Your task to perform on an android device: change notifications settings Image 0: 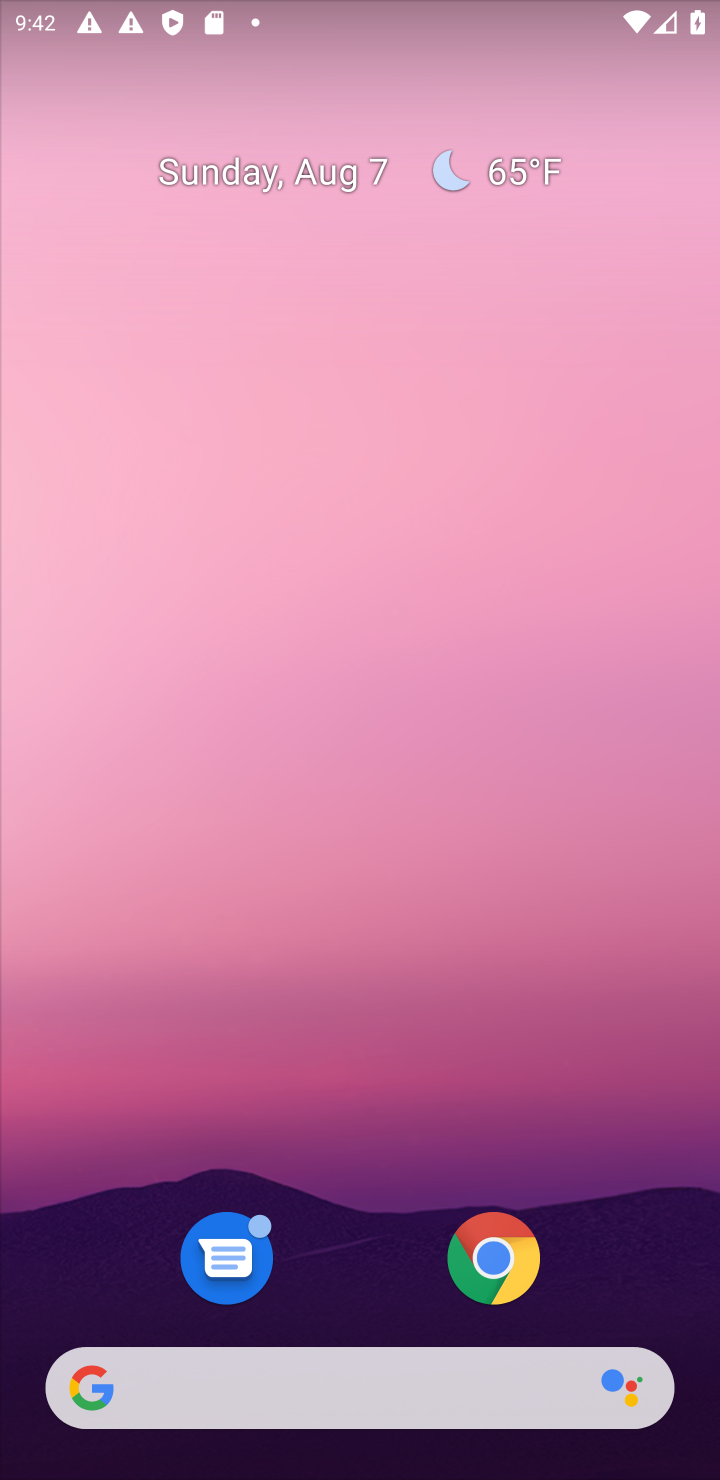
Step 0: drag from (366, 898) to (304, 145)
Your task to perform on an android device: change notifications settings Image 1: 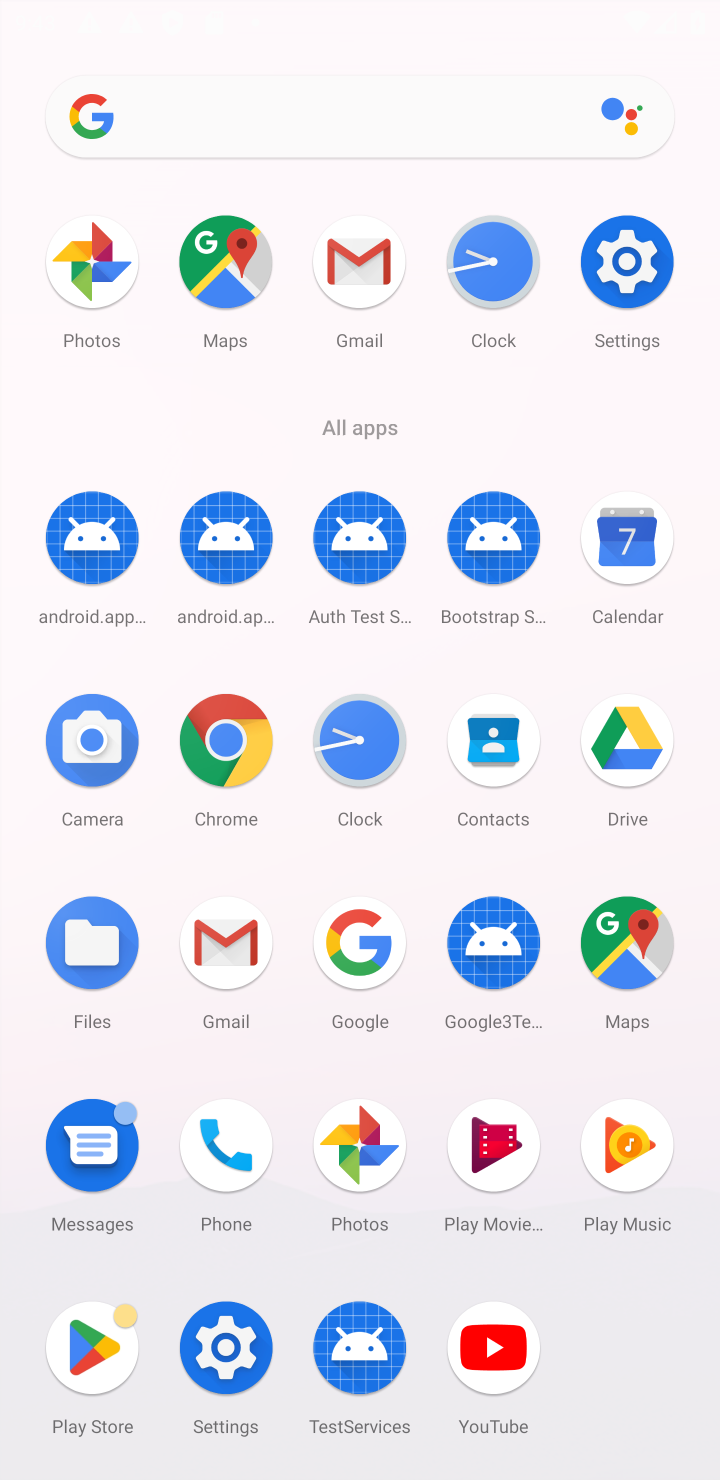
Step 1: click (239, 1353)
Your task to perform on an android device: change notifications settings Image 2: 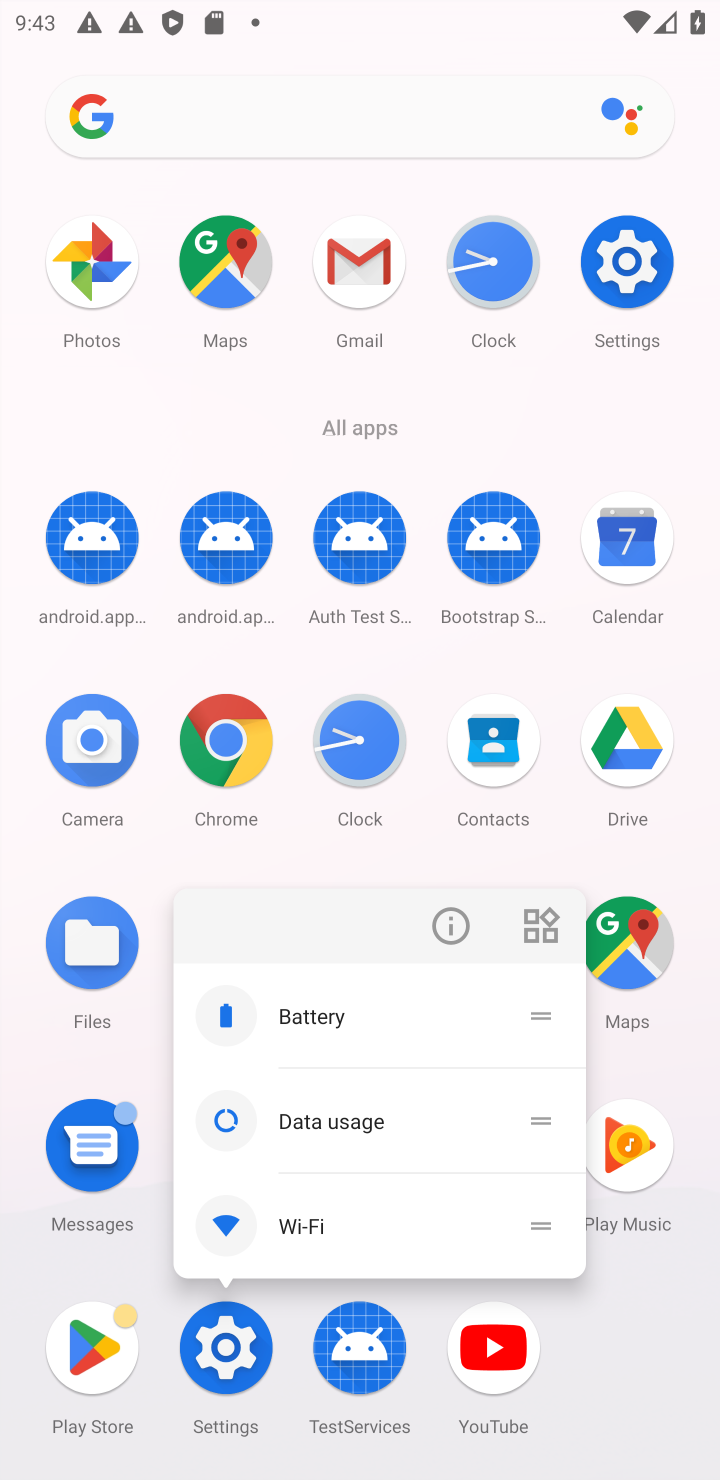
Step 2: click (240, 1390)
Your task to perform on an android device: change notifications settings Image 3: 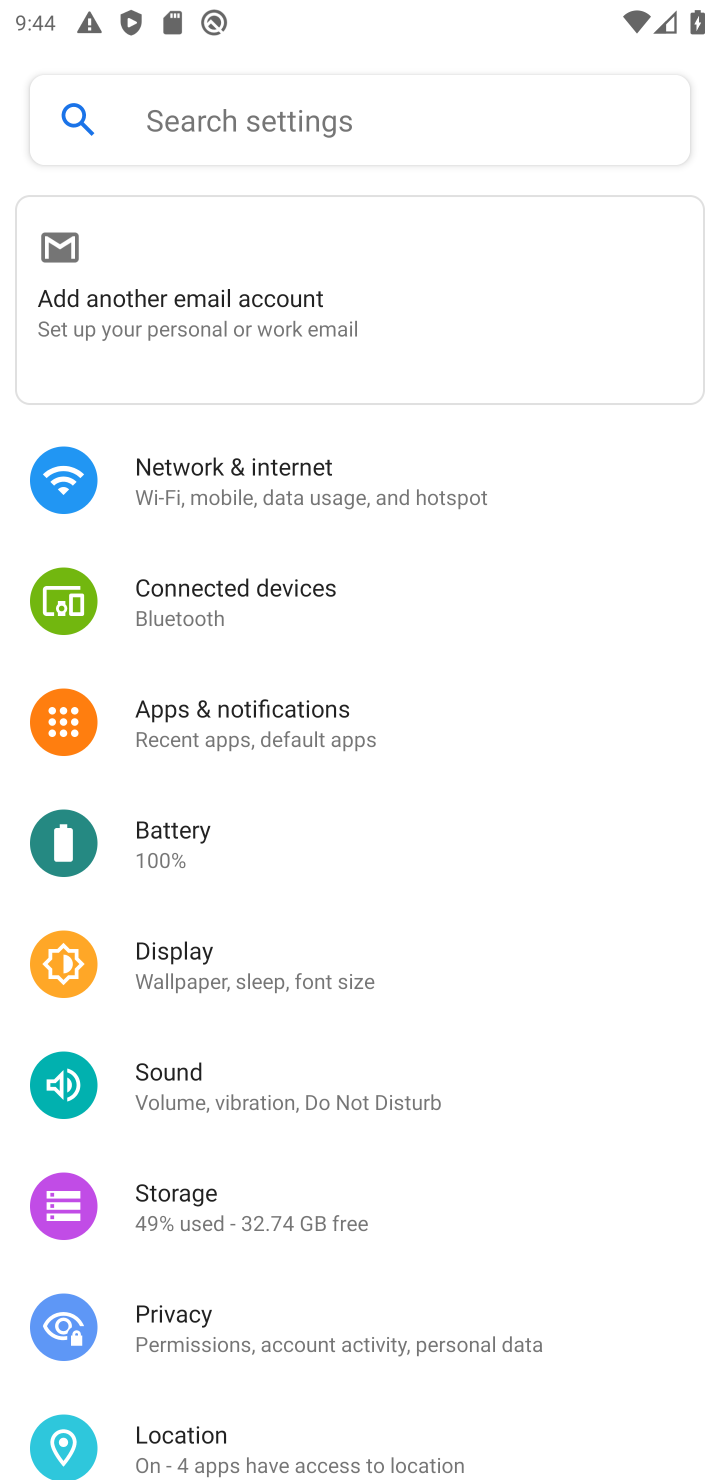
Step 3: click (281, 707)
Your task to perform on an android device: change notifications settings Image 4: 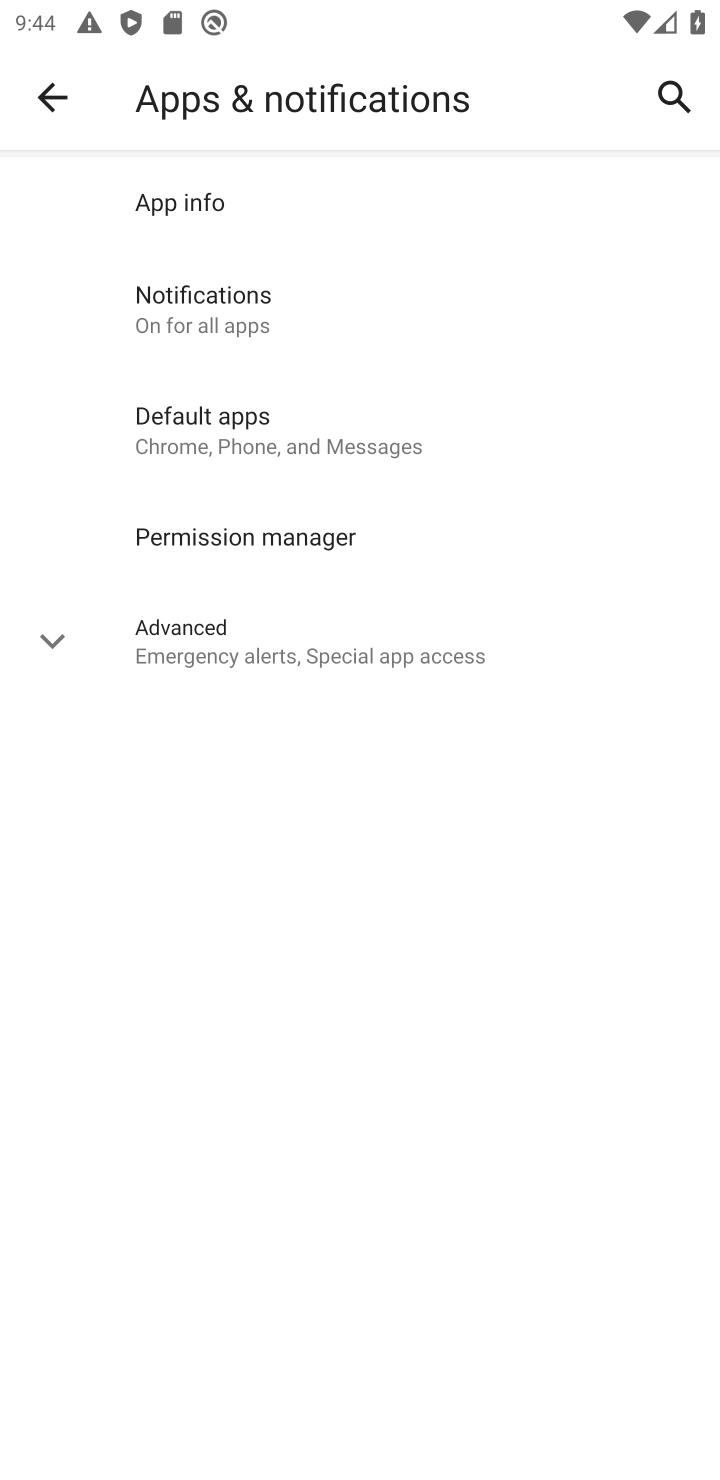
Step 4: click (197, 629)
Your task to perform on an android device: change notifications settings Image 5: 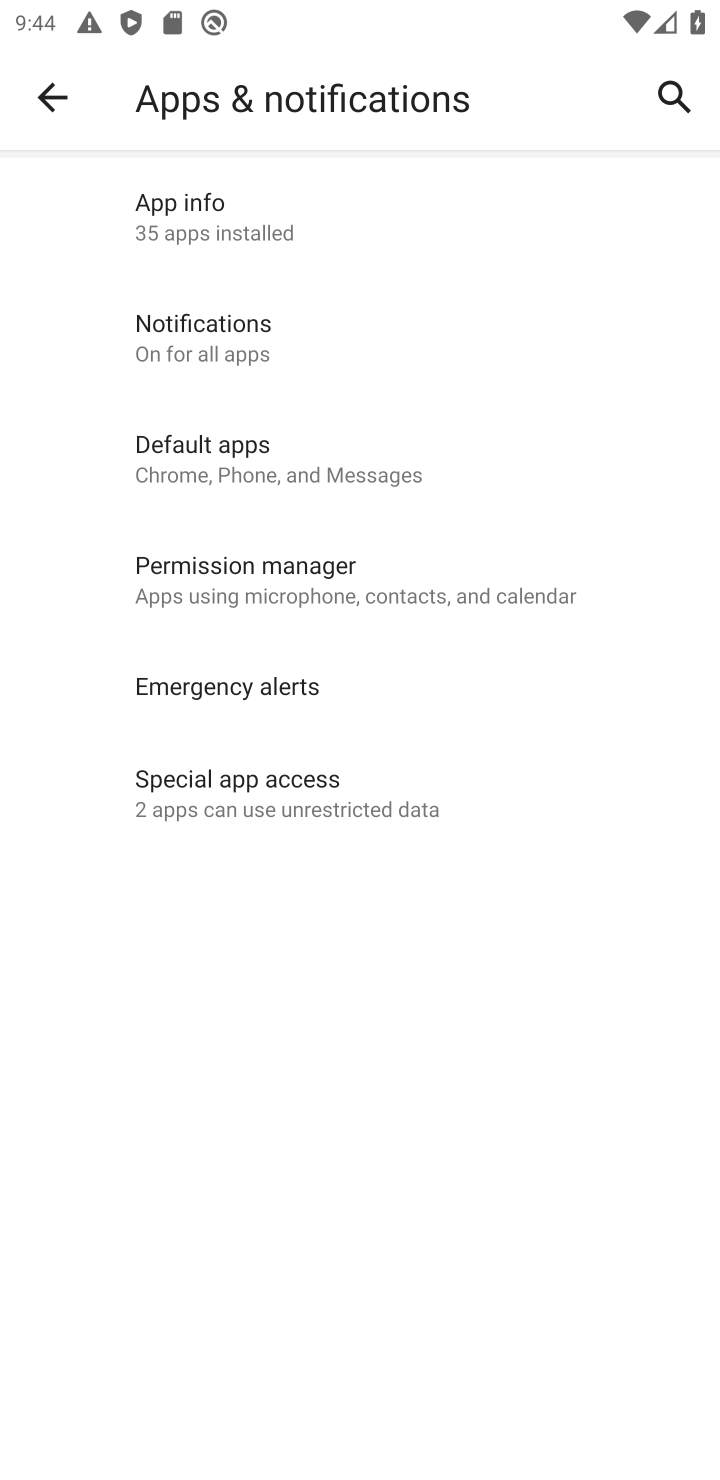
Step 5: click (170, 330)
Your task to perform on an android device: change notifications settings Image 6: 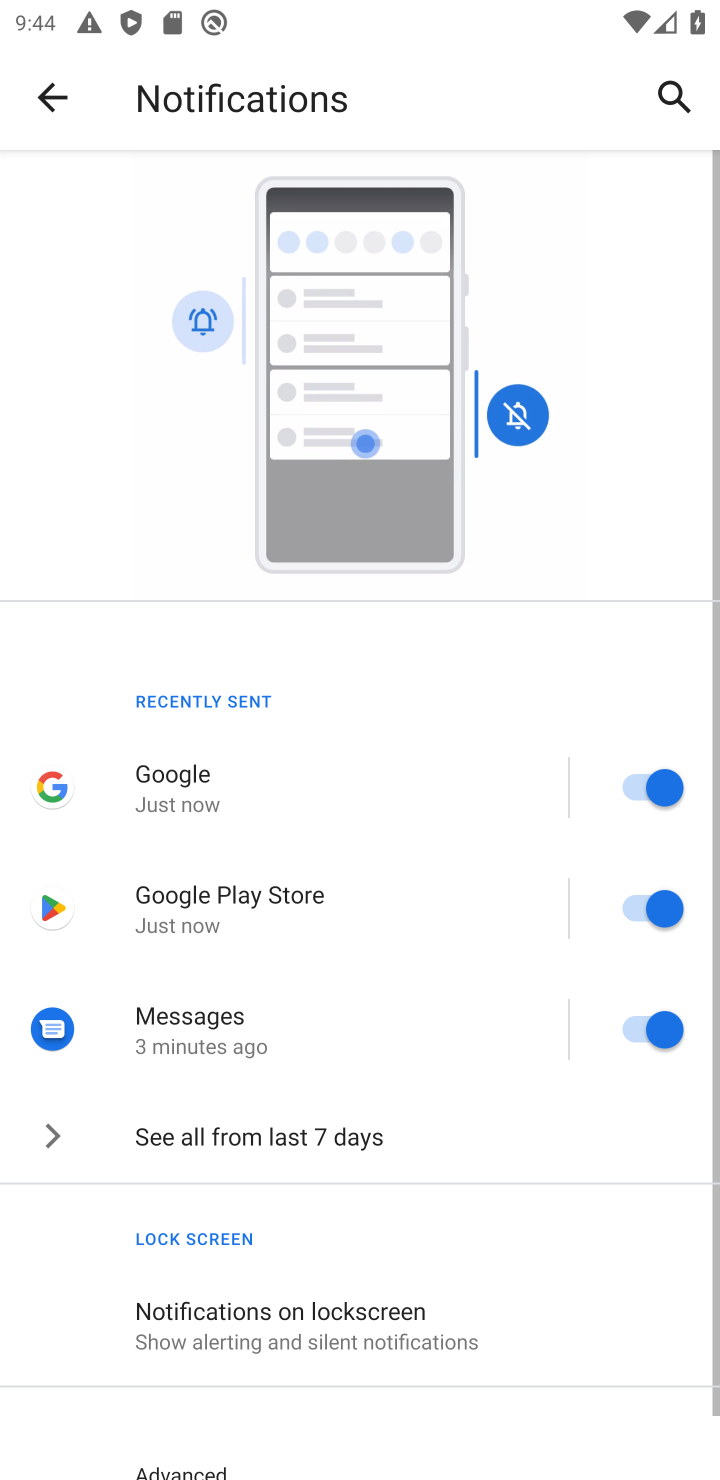
Step 6: task complete